Your task to perform on an android device: snooze an email in the gmail app Image 0: 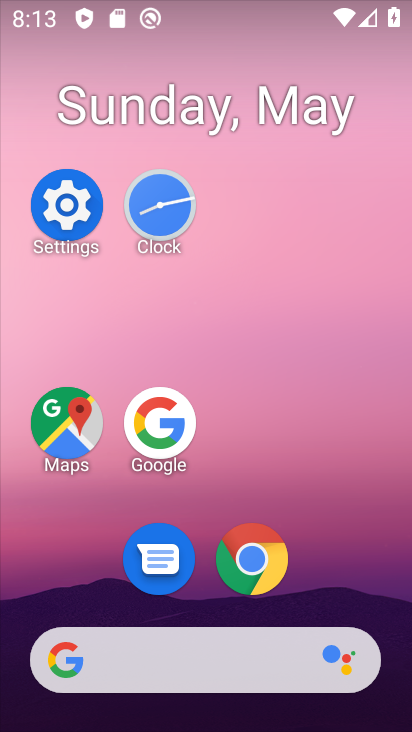
Step 0: drag from (371, 562) to (341, 122)
Your task to perform on an android device: snooze an email in the gmail app Image 1: 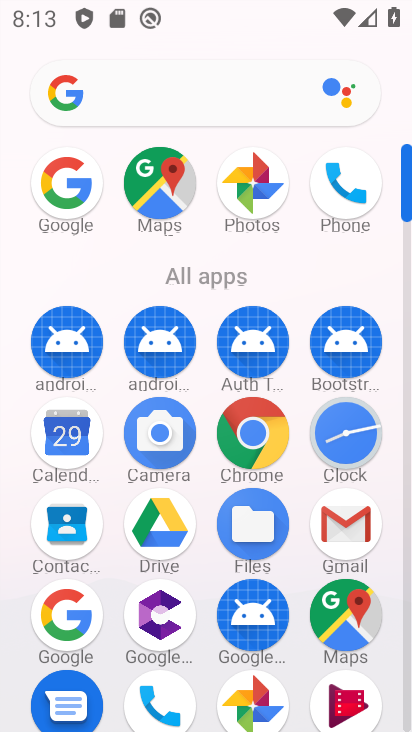
Step 1: drag from (353, 533) to (277, 424)
Your task to perform on an android device: snooze an email in the gmail app Image 2: 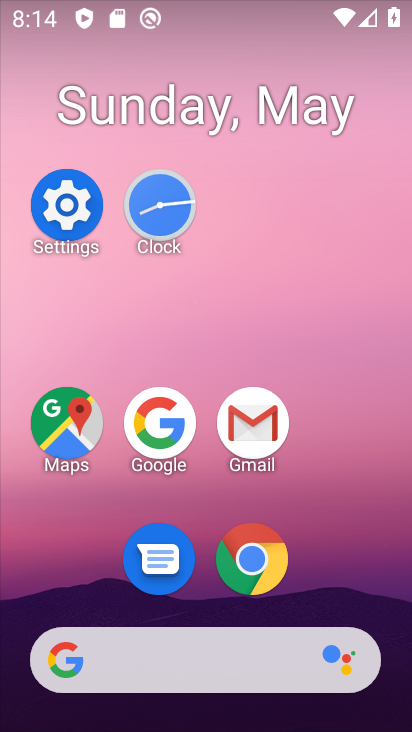
Step 2: click (263, 407)
Your task to perform on an android device: snooze an email in the gmail app Image 3: 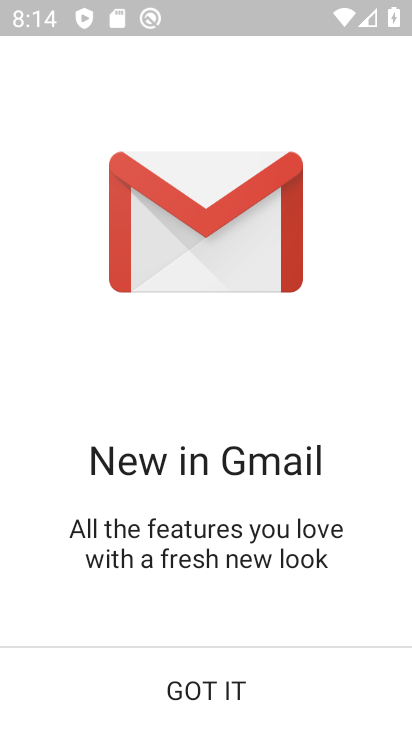
Step 3: click (215, 685)
Your task to perform on an android device: snooze an email in the gmail app Image 4: 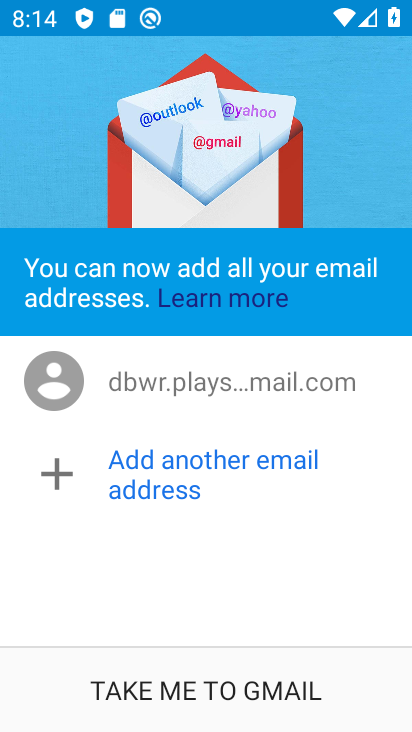
Step 4: click (215, 685)
Your task to perform on an android device: snooze an email in the gmail app Image 5: 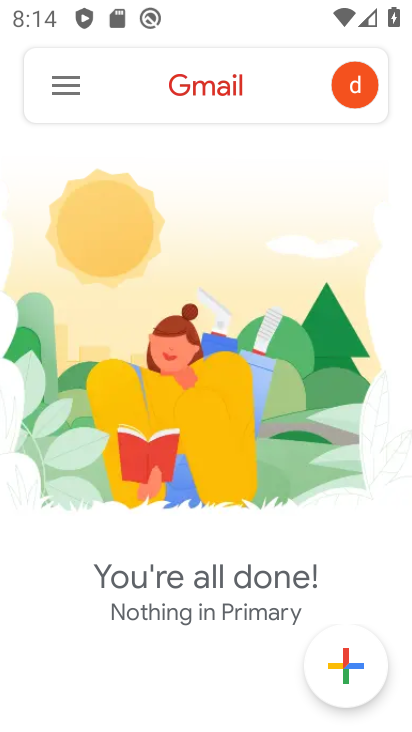
Step 5: click (39, 100)
Your task to perform on an android device: snooze an email in the gmail app Image 6: 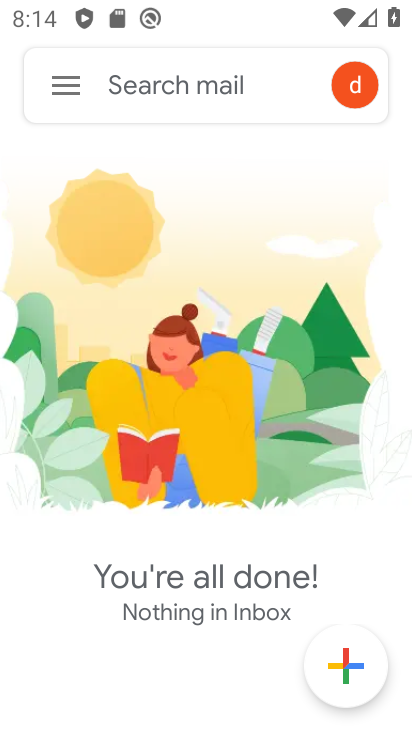
Step 6: click (87, 79)
Your task to perform on an android device: snooze an email in the gmail app Image 7: 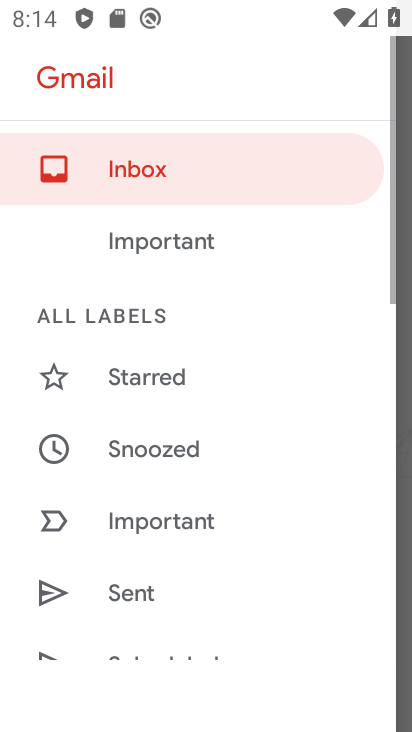
Step 7: click (286, 285)
Your task to perform on an android device: snooze an email in the gmail app Image 8: 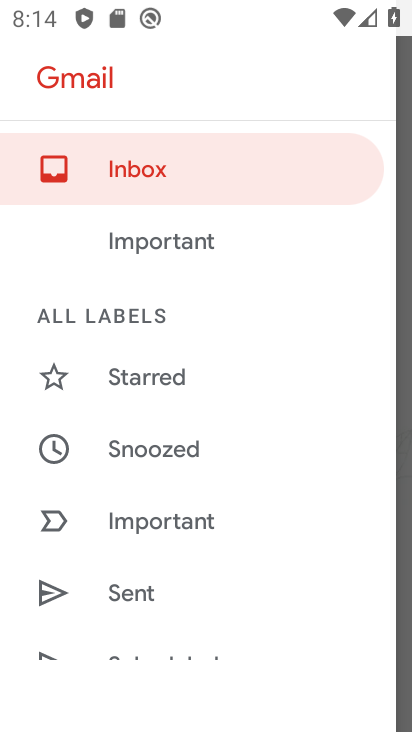
Step 8: drag from (273, 606) to (285, 276)
Your task to perform on an android device: snooze an email in the gmail app Image 9: 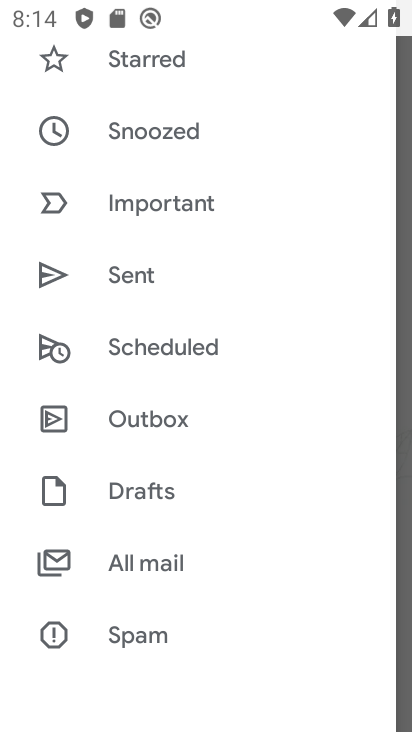
Step 9: click (241, 575)
Your task to perform on an android device: snooze an email in the gmail app Image 10: 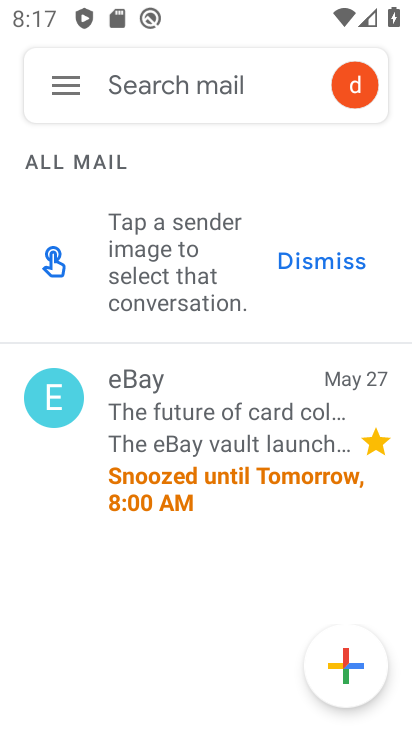
Step 10: click (267, 459)
Your task to perform on an android device: snooze an email in the gmail app Image 11: 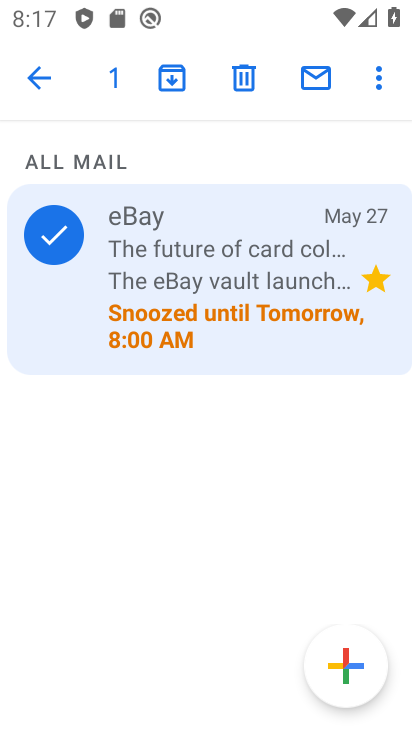
Step 11: click (276, 319)
Your task to perform on an android device: snooze an email in the gmail app Image 12: 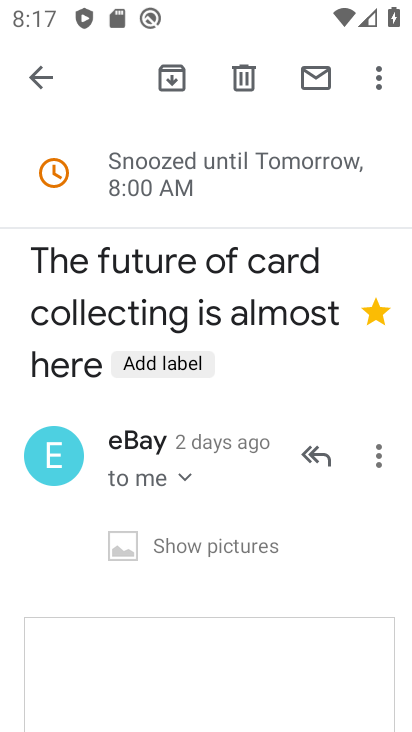
Step 12: task complete